Your task to perform on an android device: Go to ESPN.com Image 0: 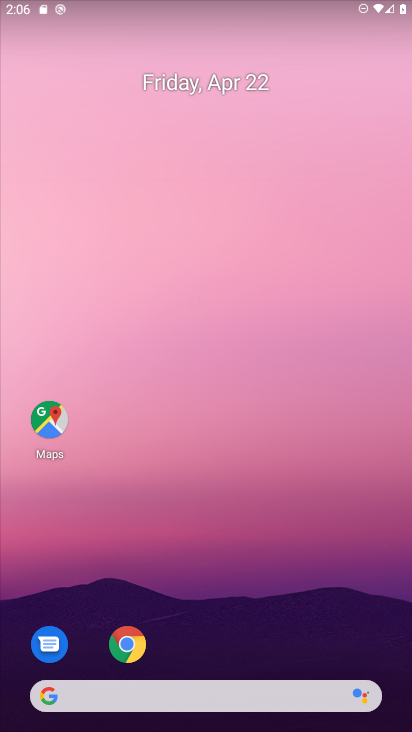
Step 0: click (125, 644)
Your task to perform on an android device: Go to ESPN.com Image 1: 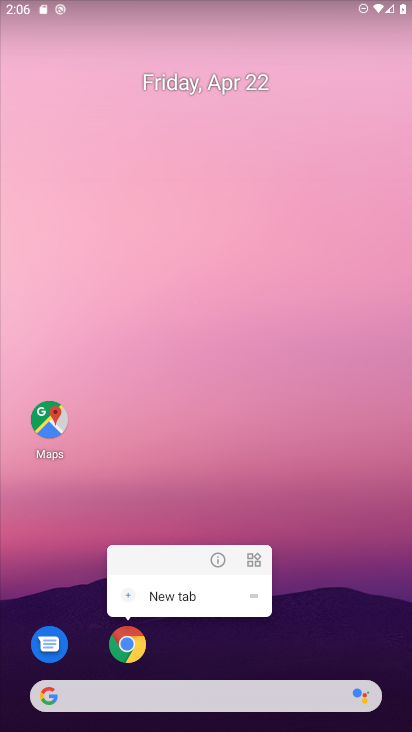
Step 1: click (129, 646)
Your task to perform on an android device: Go to ESPN.com Image 2: 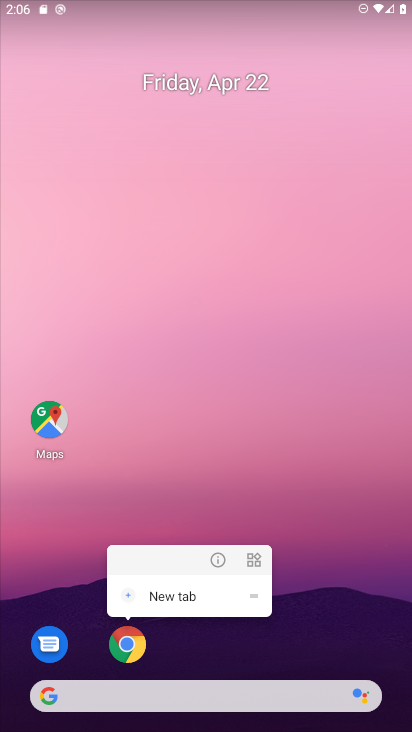
Step 2: click (128, 647)
Your task to perform on an android device: Go to ESPN.com Image 3: 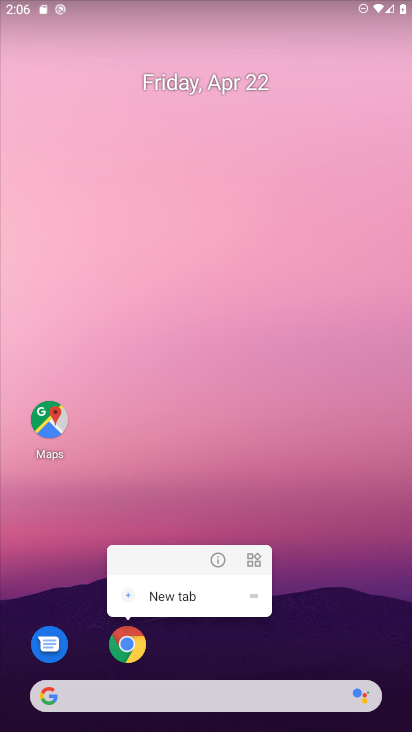
Step 3: click (129, 647)
Your task to perform on an android device: Go to ESPN.com Image 4: 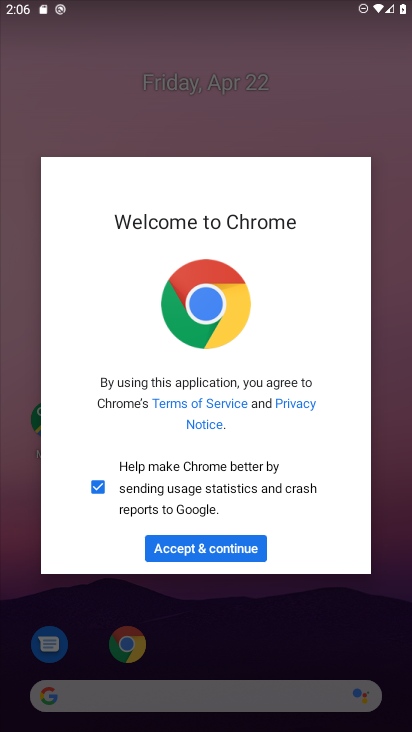
Step 4: click (225, 545)
Your task to perform on an android device: Go to ESPN.com Image 5: 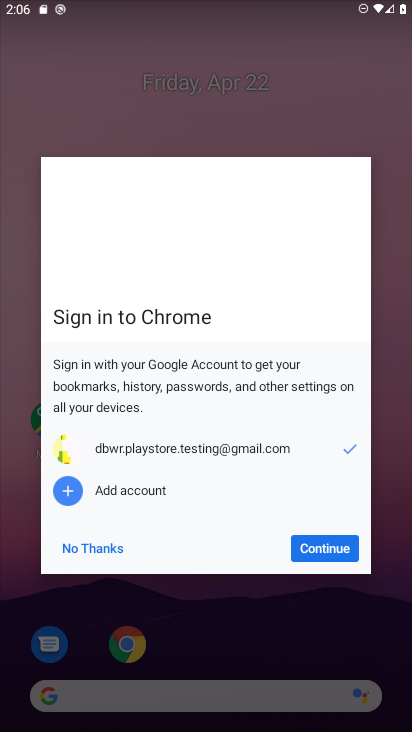
Step 5: click (328, 554)
Your task to perform on an android device: Go to ESPN.com Image 6: 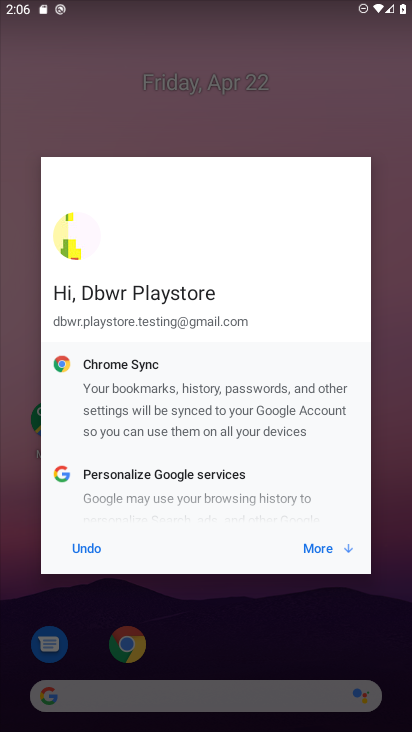
Step 6: click (316, 553)
Your task to perform on an android device: Go to ESPN.com Image 7: 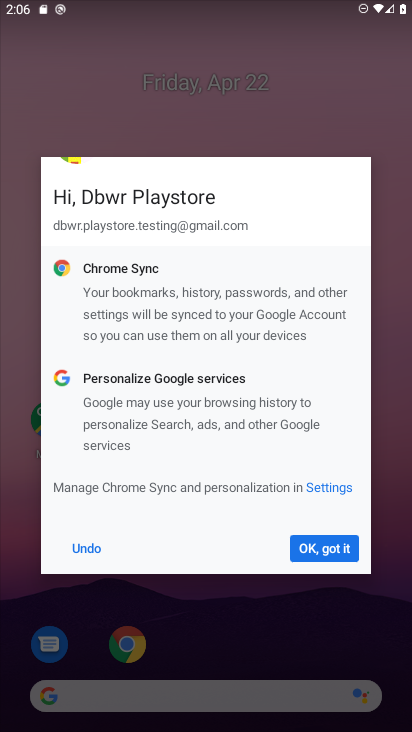
Step 7: click (313, 552)
Your task to perform on an android device: Go to ESPN.com Image 8: 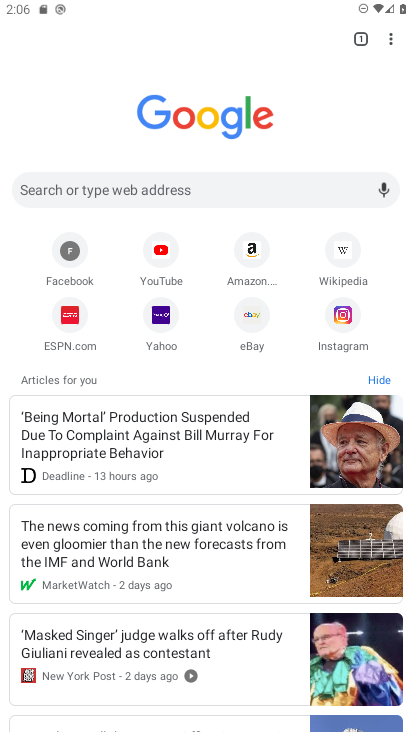
Step 8: click (191, 196)
Your task to perform on an android device: Go to ESPN.com Image 9: 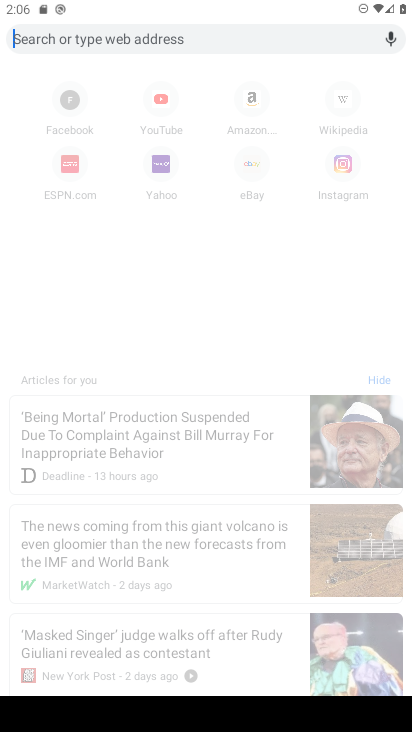
Step 9: type "espn.com"
Your task to perform on an android device: Go to ESPN.com Image 10: 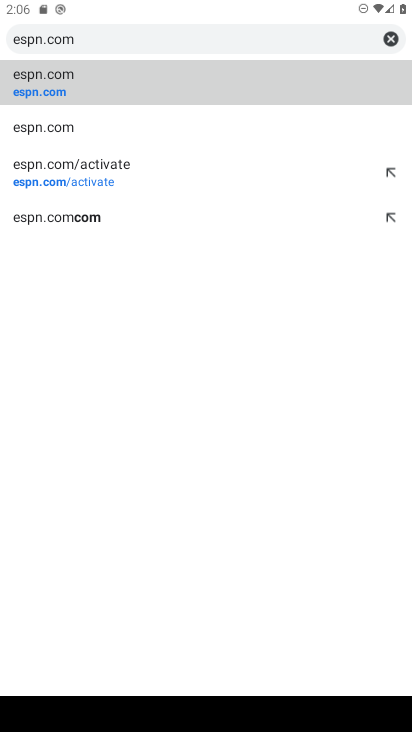
Step 10: click (71, 82)
Your task to perform on an android device: Go to ESPN.com Image 11: 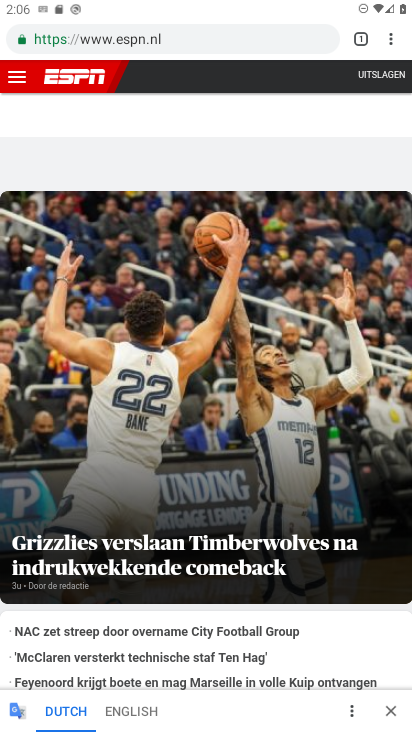
Step 11: task complete